Your task to perform on an android device: Go to Google Image 0: 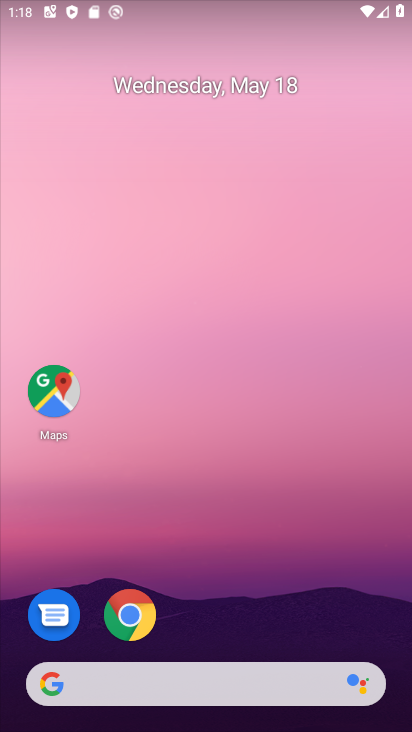
Step 0: drag from (347, 631) to (289, 18)
Your task to perform on an android device: Go to Google Image 1: 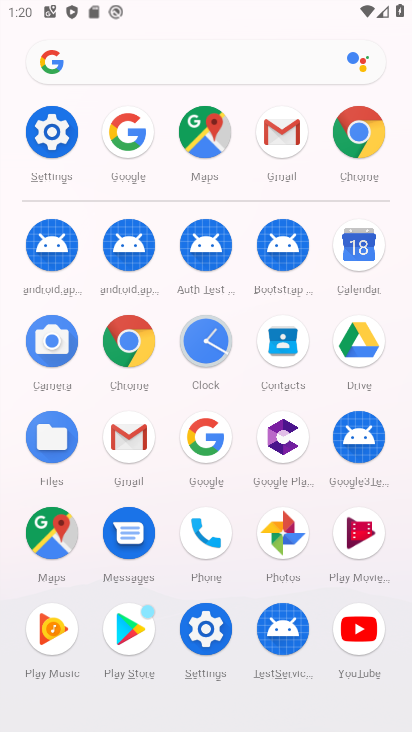
Step 1: click (198, 437)
Your task to perform on an android device: Go to Google Image 2: 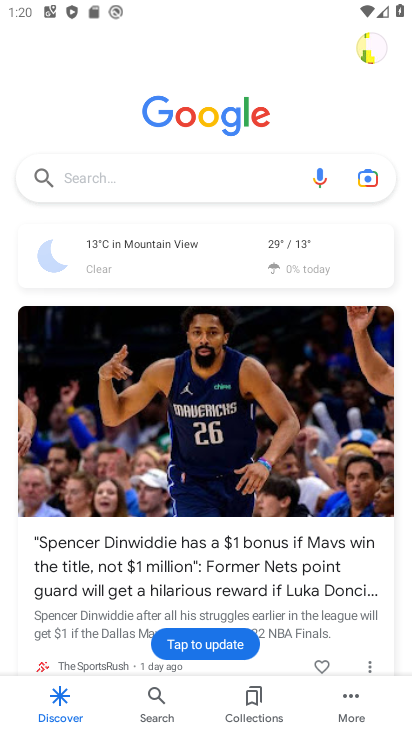
Step 2: task complete